Your task to perform on an android device: allow cookies in the chrome app Image 0: 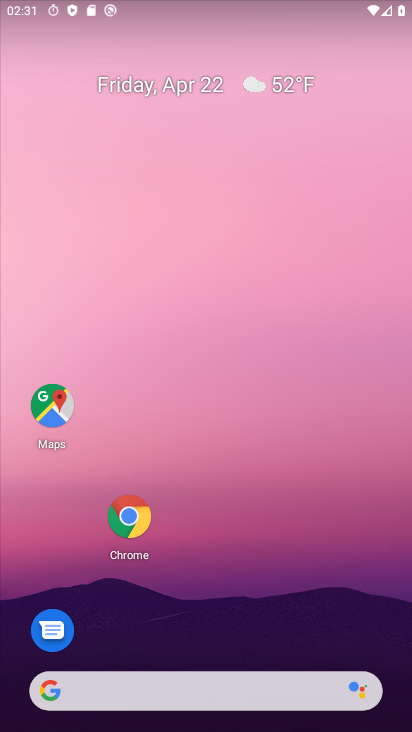
Step 0: click (135, 514)
Your task to perform on an android device: allow cookies in the chrome app Image 1: 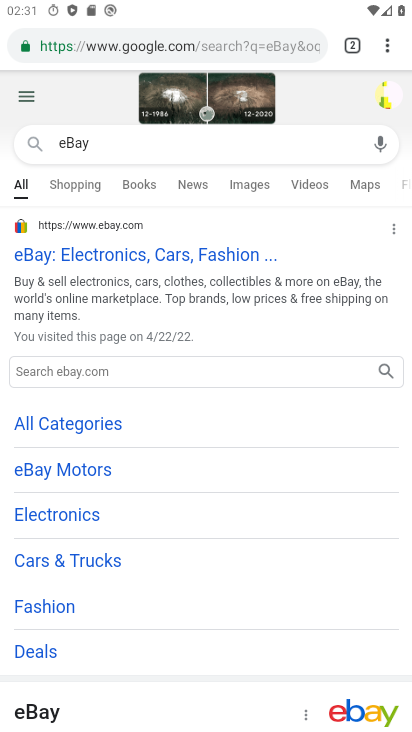
Step 1: click (385, 44)
Your task to perform on an android device: allow cookies in the chrome app Image 2: 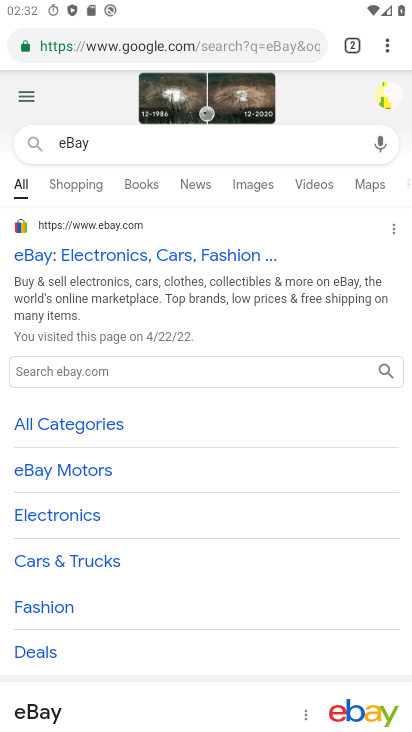
Step 2: click (385, 45)
Your task to perform on an android device: allow cookies in the chrome app Image 3: 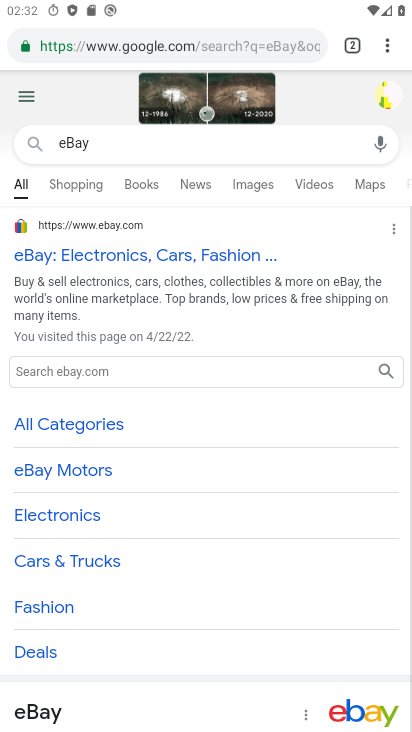
Step 3: click (385, 45)
Your task to perform on an android device: allow cookies in the chrome app Image 4: 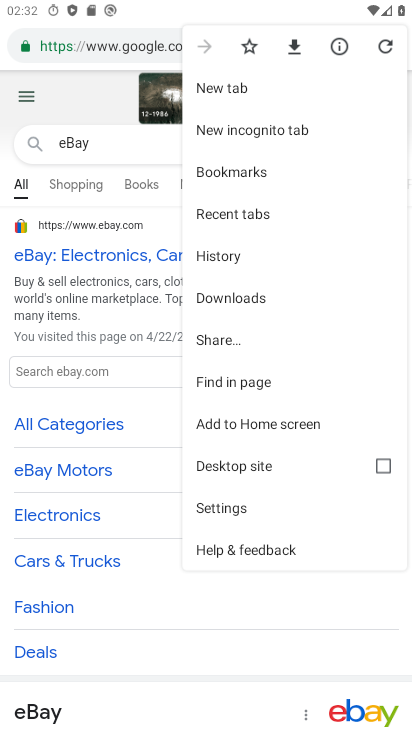
Step 4: click (221, 503)
Your task to perform on an android device: allow cookies in the chrome app Image 5: 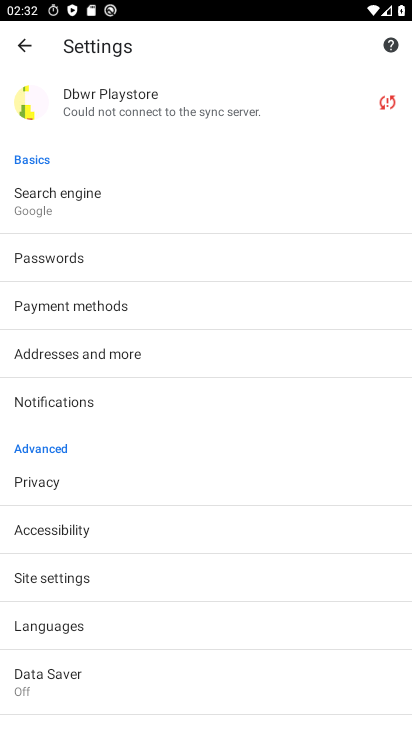
Step 5: click (28, 578)
Your task to perform on an android device: allow cookies in the chrome app Image 6: 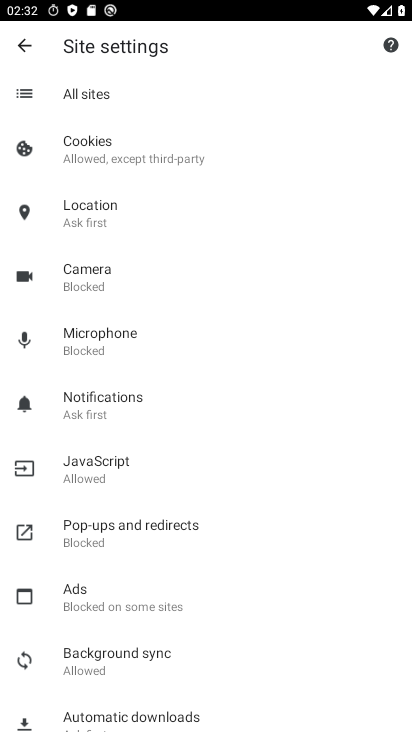
Step 6: click (89, 141)
Your task to perform on an android device: allow cookies in the chrome app Image 7: 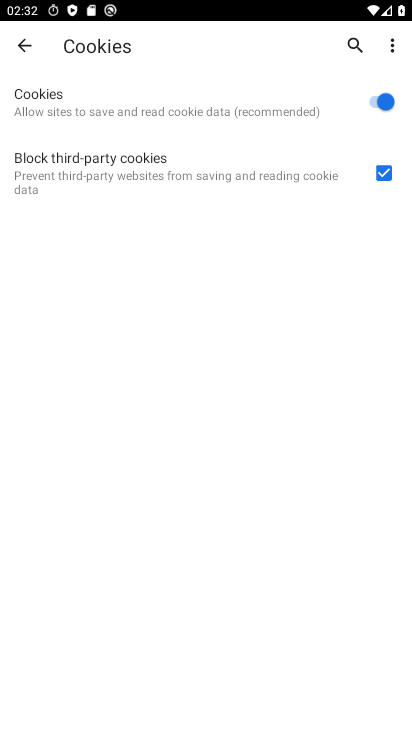
Step 7: task complete